Your task to perform on an android device: turn on translation in the chrome app Image 0: 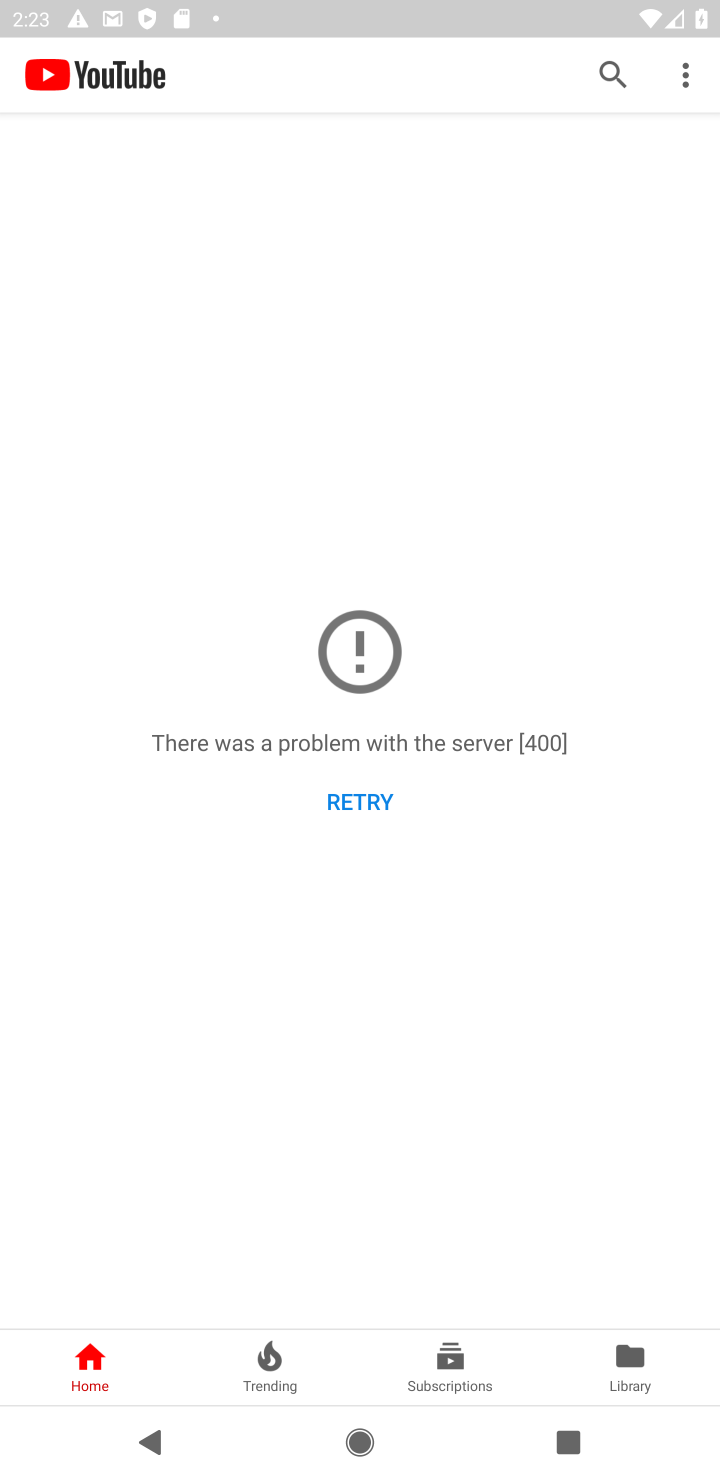
Step 0: press home button
Your task to perform on an android device: turn on translation in the chrome app Image 1: 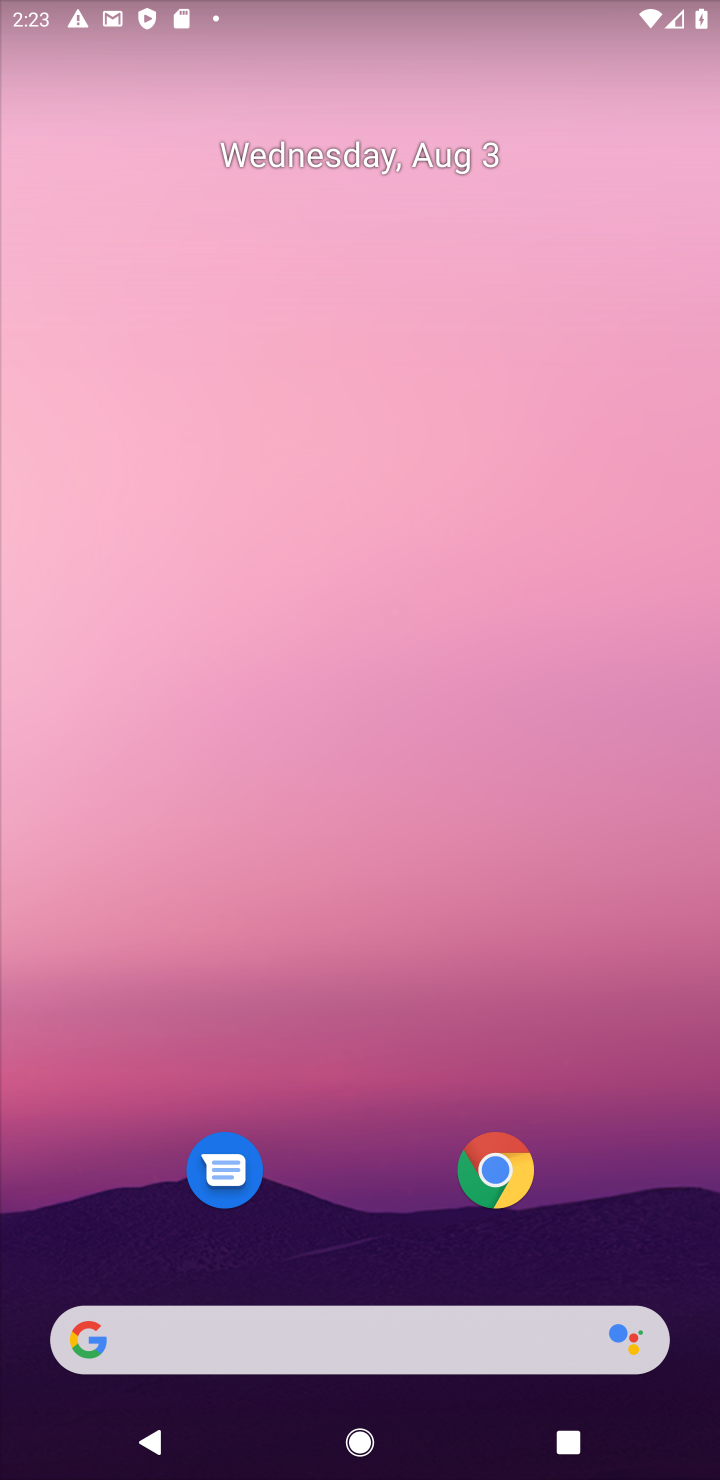
Step 1: click (487, 1169)
Your task to perform on an android device: turn on translation in the chrome app Image 2: 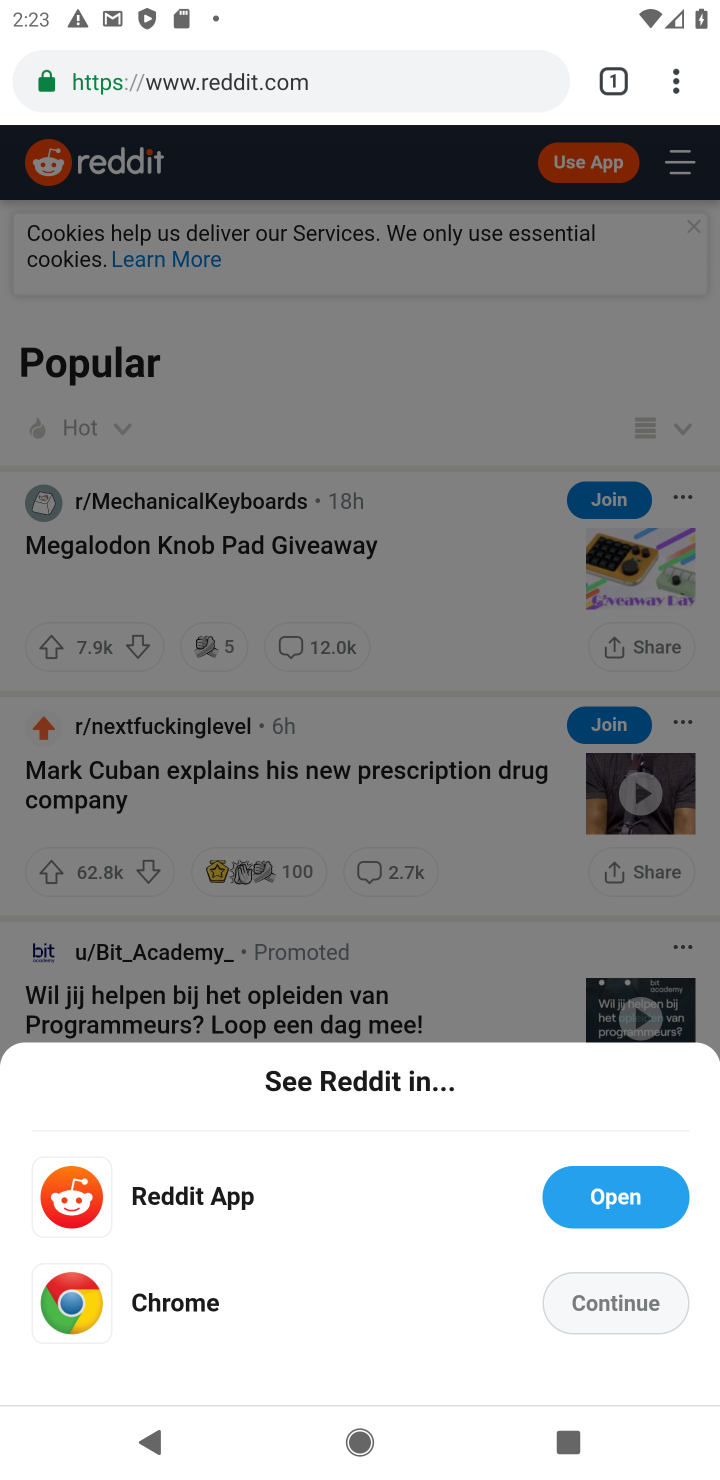
Step 2: click (675, 91)
Your task to perform on an android device: turn on translation in the chrome app Image 3: 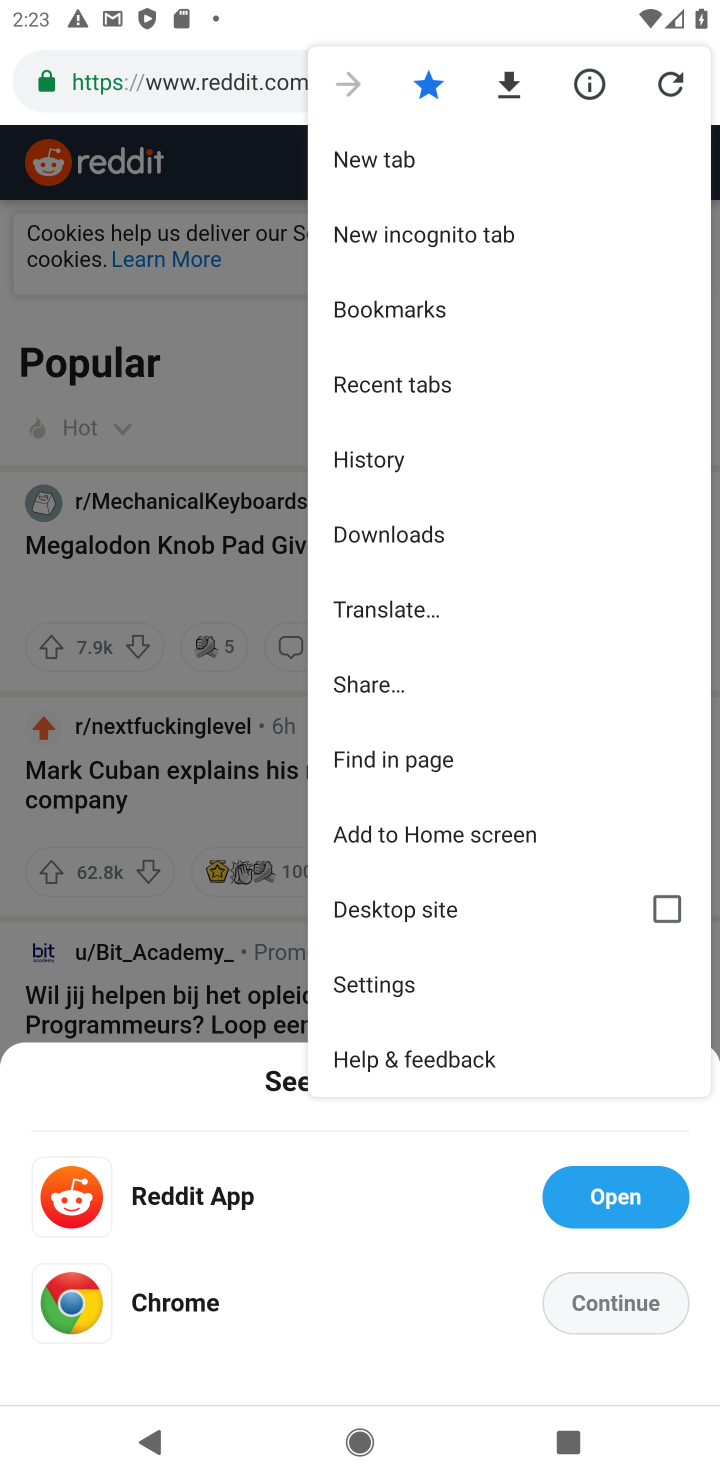
Step 3: click (419, 974)
Your task to perform on an android device: turn on translation in the chrome app Image 4: 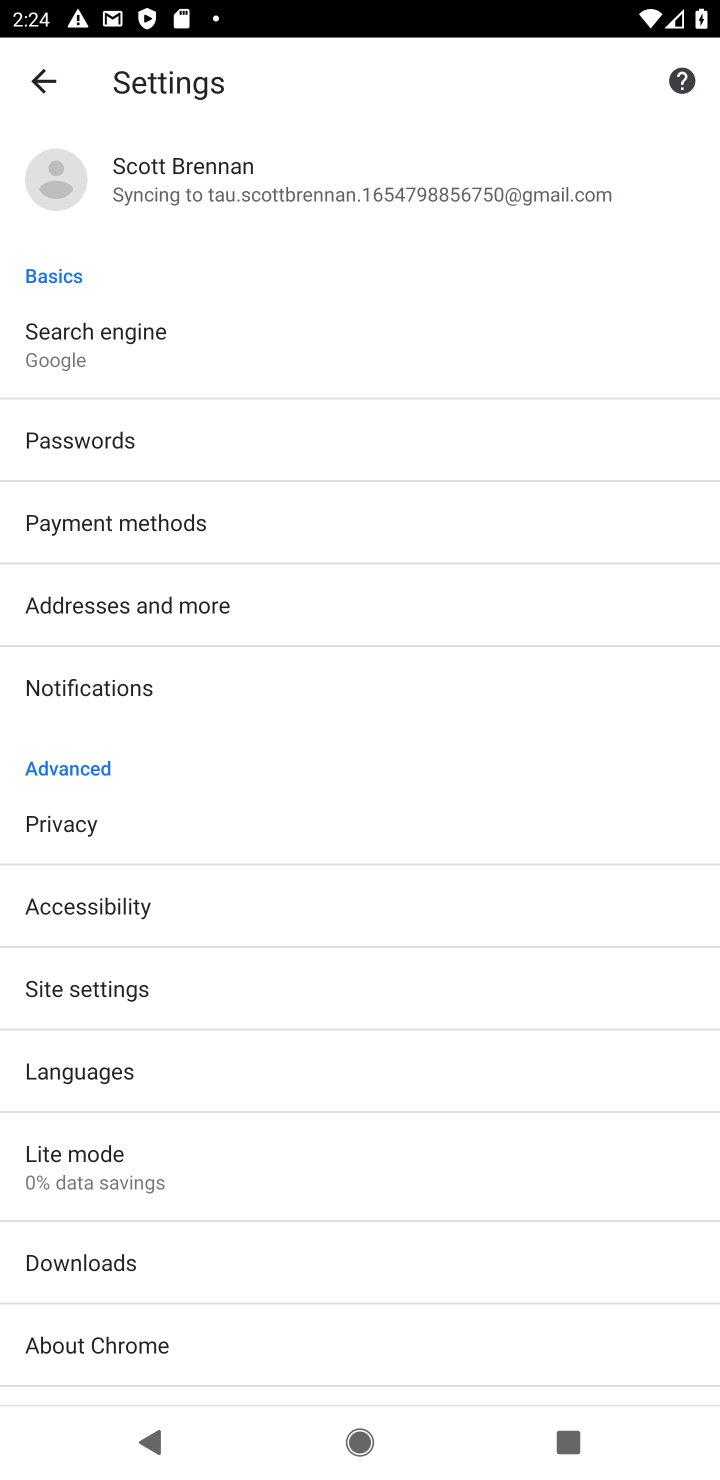
Step 4: click (240, 1072)
Your task to perform on an android device: turn on translation in the chrome app Image 5: 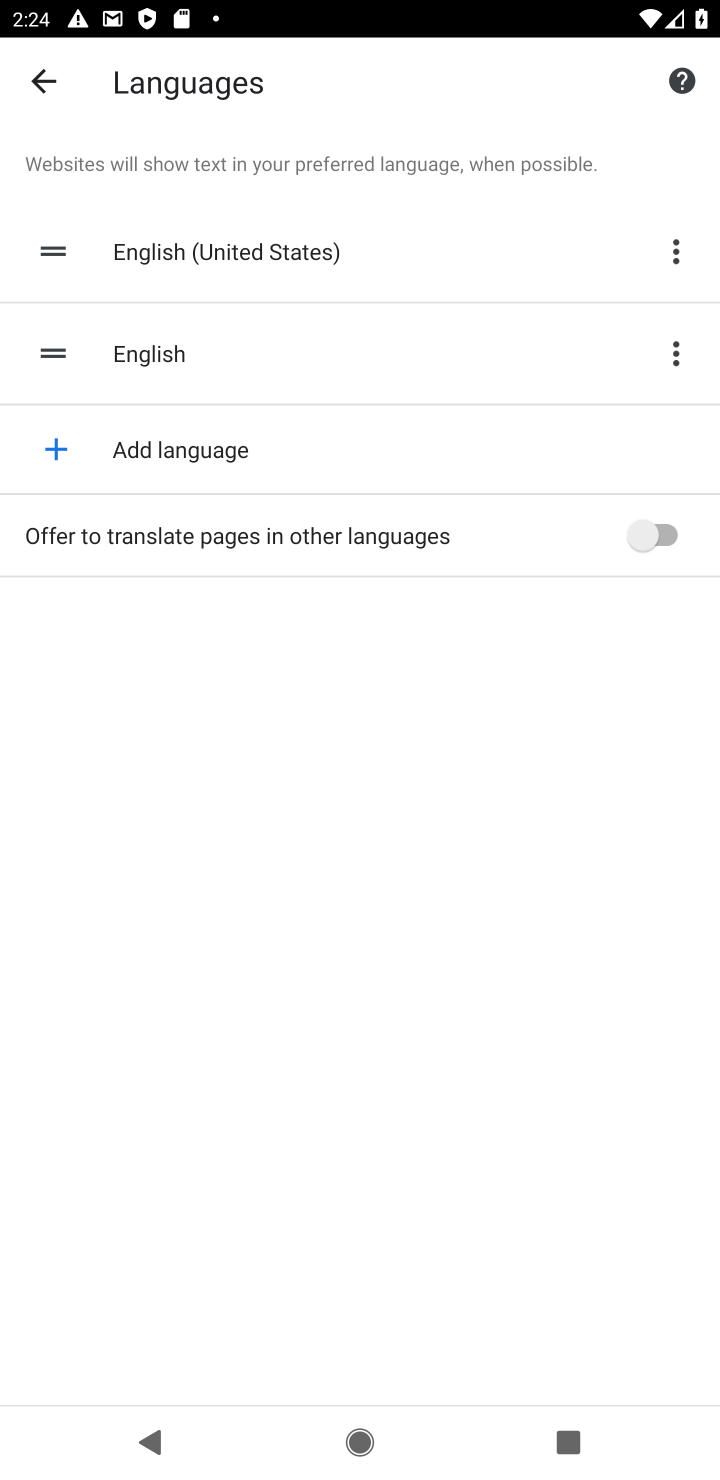
Step 5: click (651, 543)
Your task to perform on an android device: turn on translation in the chrome app Image 6: 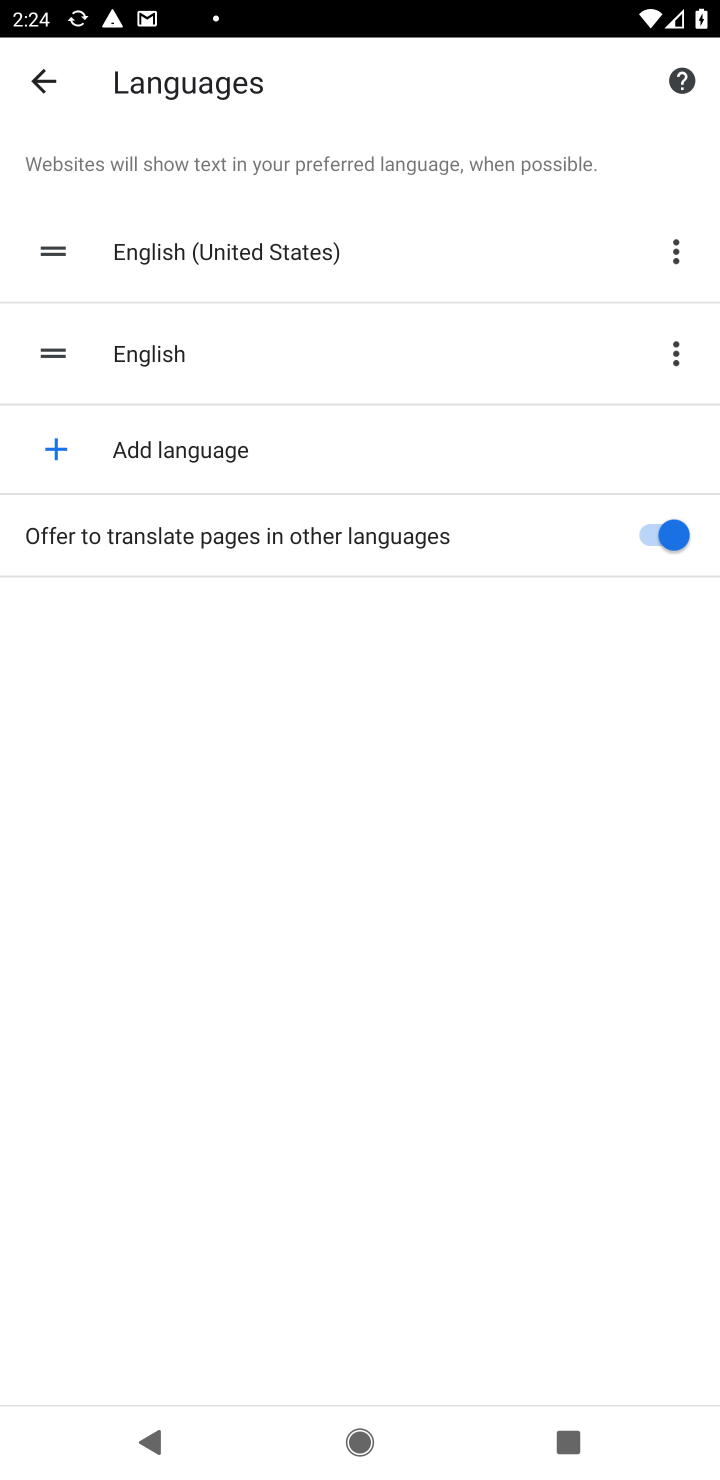
Step 6: task complete